Your task to perform on an android device: change the clock display to digital Image 0: 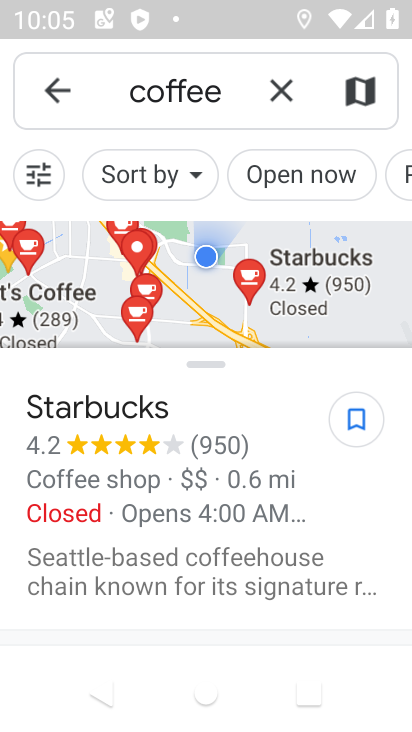
Step 0: press home button
Your task to perform on an android device: change the clock display to digital Image 1: 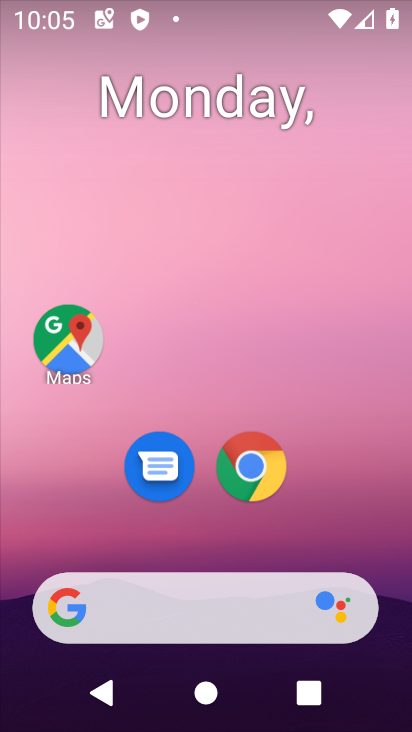
Step 1: drag from (223, 540) to (255, 227)
Your task to perform on an android device: change the clock display to digital Image 2: 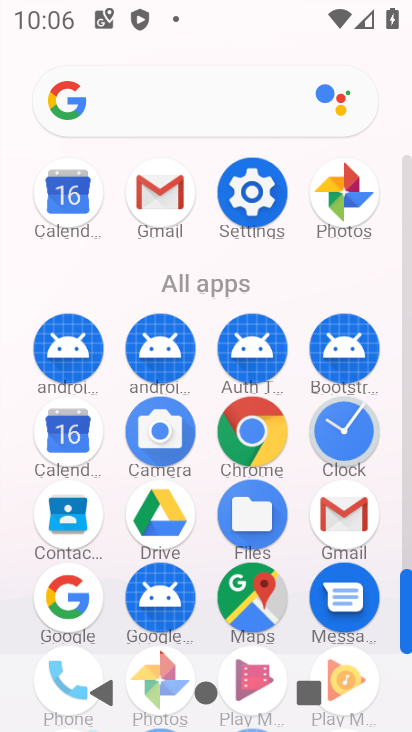
Step 2: click (348, 433)
Your task to perform on an android device: change the clock display to digital Image 3: 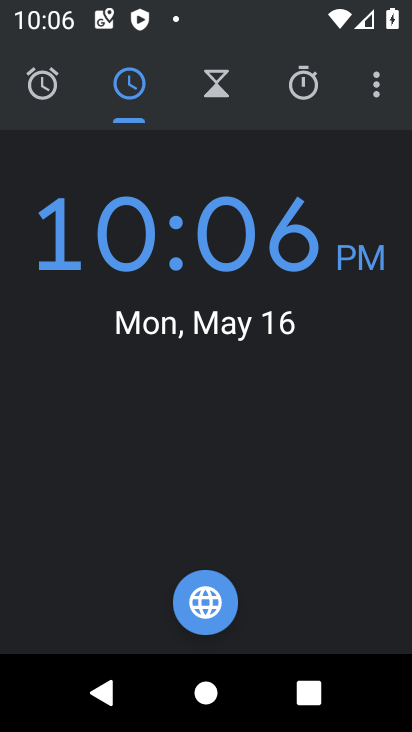
Step 3: click (381, 95)
Your task to perform on an android device: change the clock display to digital Image 4: 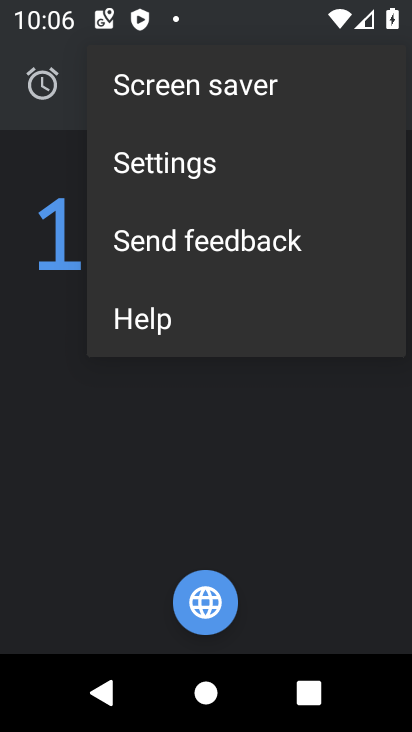
Step 4: click (250, 164)
Your task to perform on an android device: change the clock display to digital Image 5: 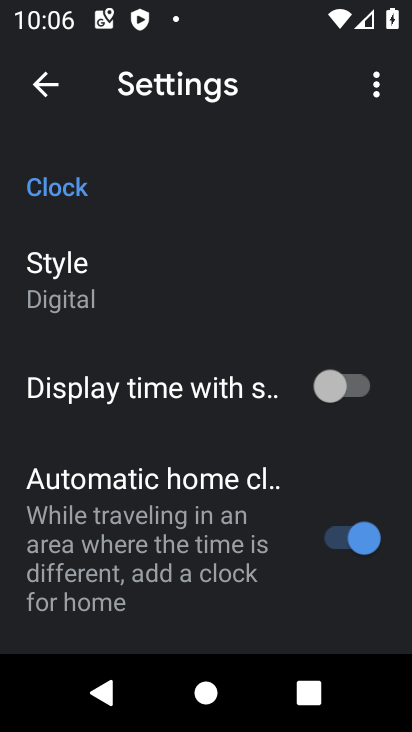
Step 5: click (73, 306)
Your task to perform on an android device: change the clock display to digital Image 6: 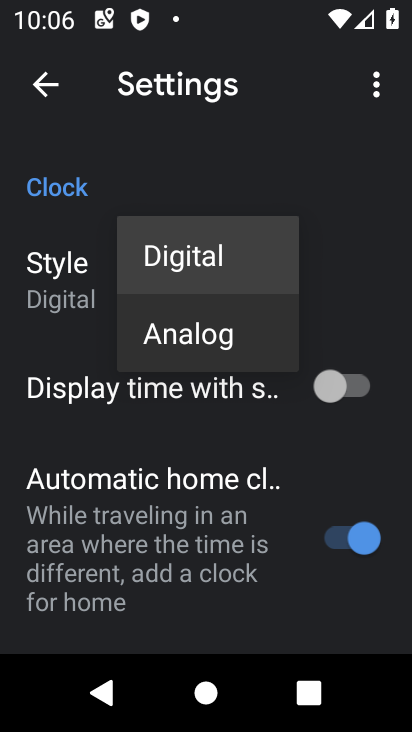
Step 6: task complete